Your task to perform on an android device: Go to Google maps Image 0: 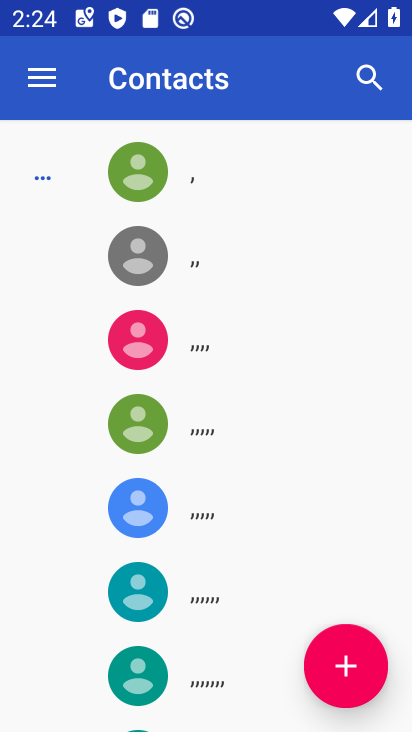
Step 0: press home button
Your task to perform on an android device: Go to Google maps Image 1: 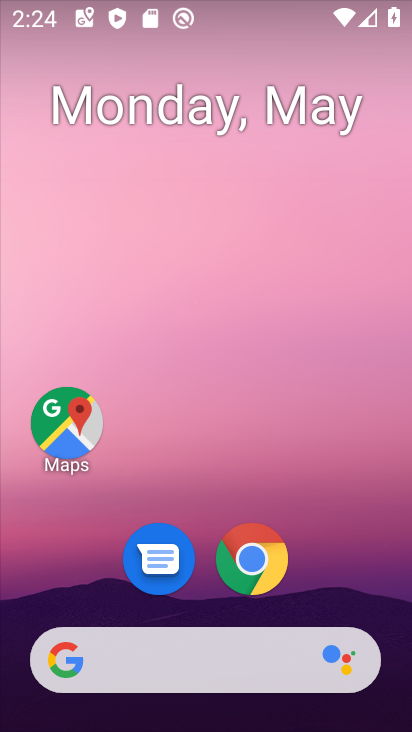
Step 1: click (72, 431)
Your task to perform on an android device: Go to Google maps Image 2: 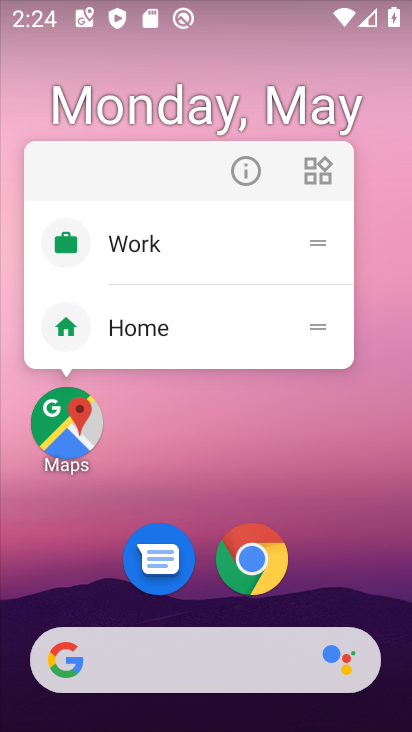
Step 2: click (72, 431)
Your task to perform on an android device: Go to Google maps Image 3: 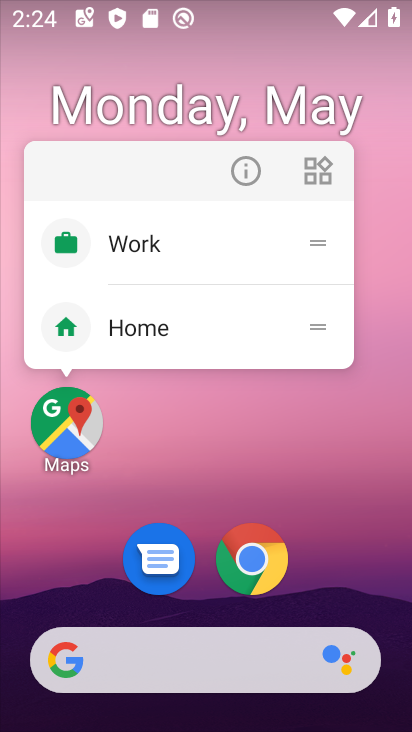
Step 3: click (72, 431)
Your task to perform on an android device: Go to Google maps Image 4: 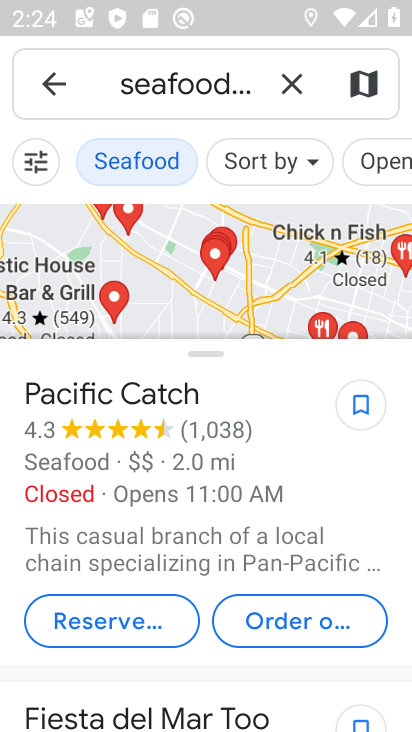
Step 4: click (51, 86)
Your task to perform on an android device: Go to Google maps Image 5: 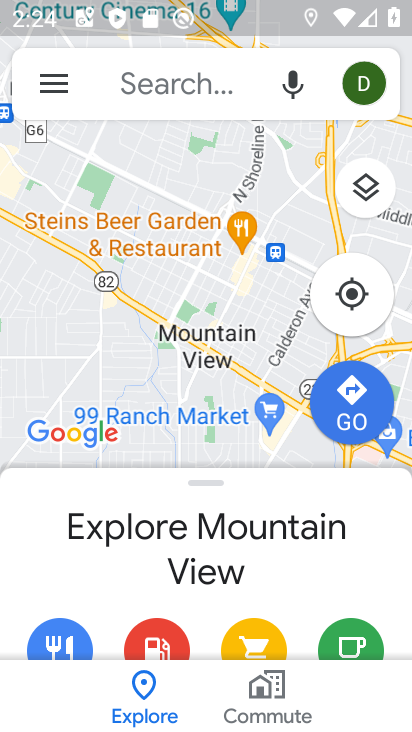
Step 5: task complete